Your task to perform on an android device: Open Google Chrome Image 0: 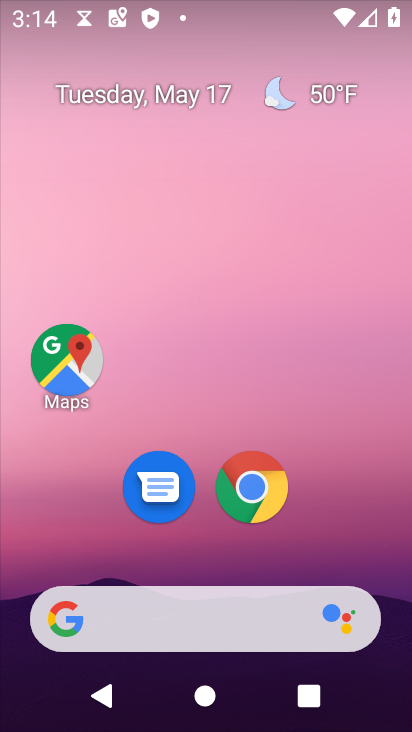
Step 0: click (251, 495)
Your task to perform on an android device: Open Google Chrome Image 1: 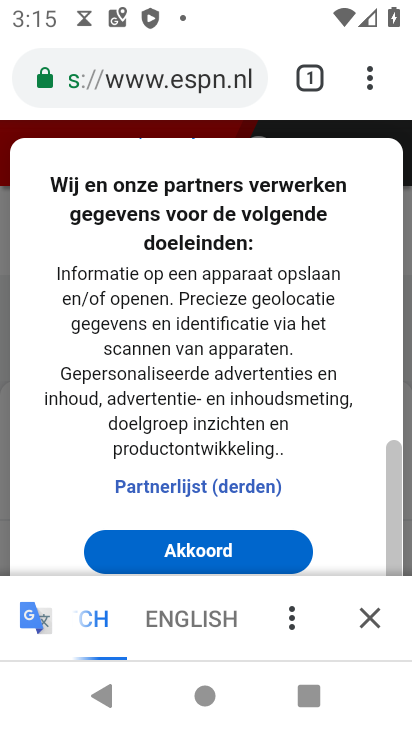
Step 1: task complete